Your task to perform on an android device: Go to wifi settings Image 0: 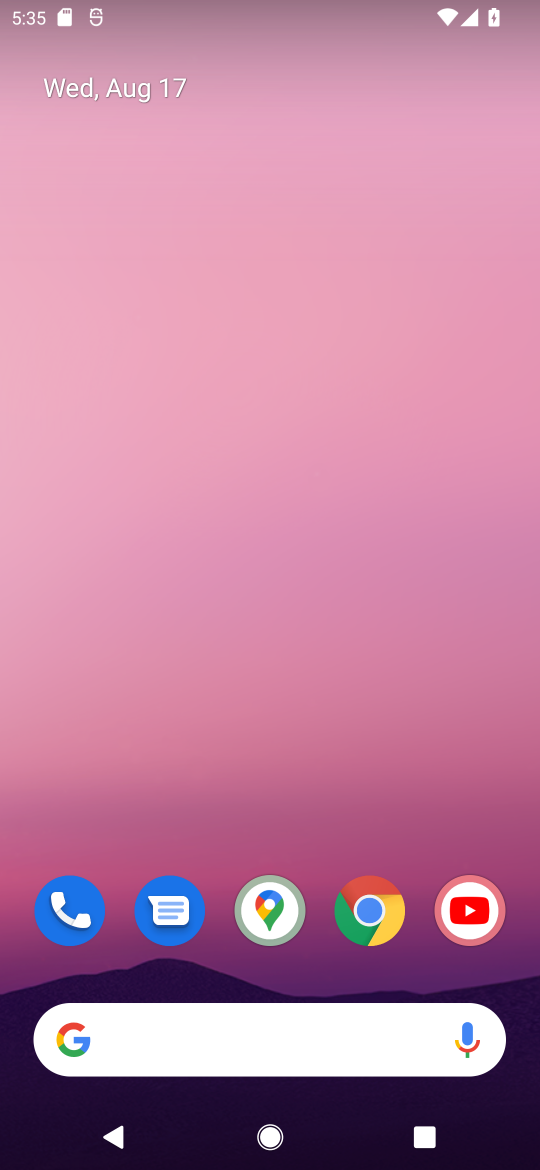
Step 0: drag from (358, 712) to (365, 389)
Your task to perform on an android device: Go to wifi settings Image 1: 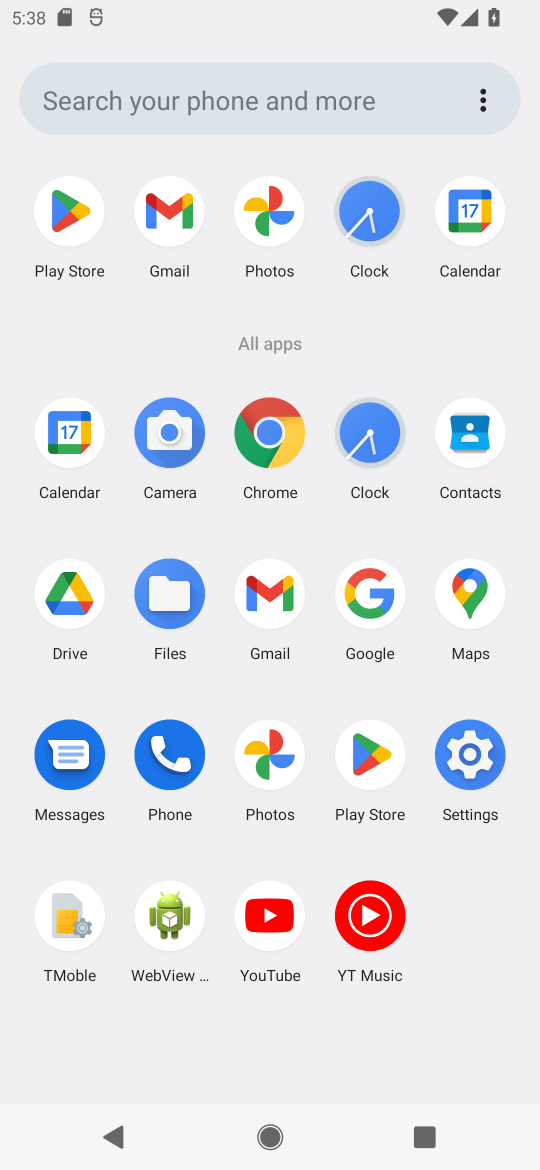
Step 1: click (470, 736)
Your task to perform on an android device: Go to wifi settings Image 2: 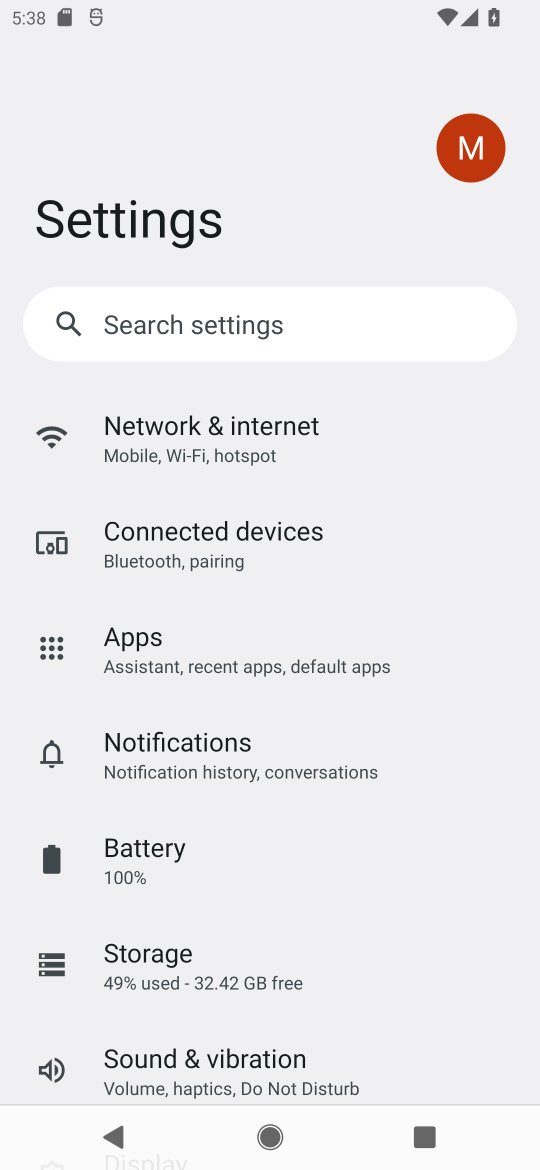
Step 2: task complete